Your task to perform on an android device: Open Yahoo.com Image 0: 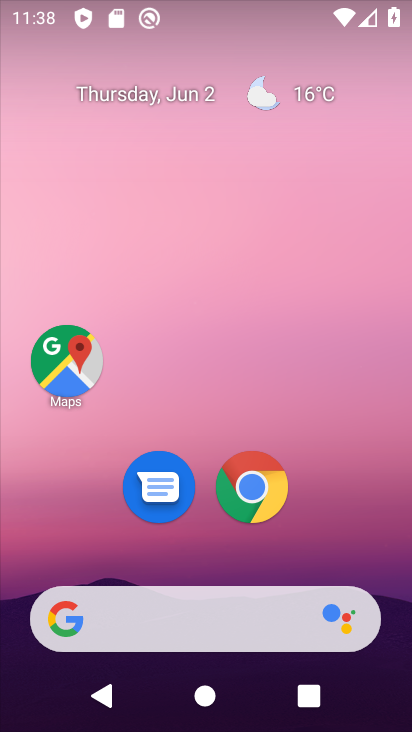
Step 0: click (64, 617)
Your task to perform on an android device: Open Yahoo.com Image 1: 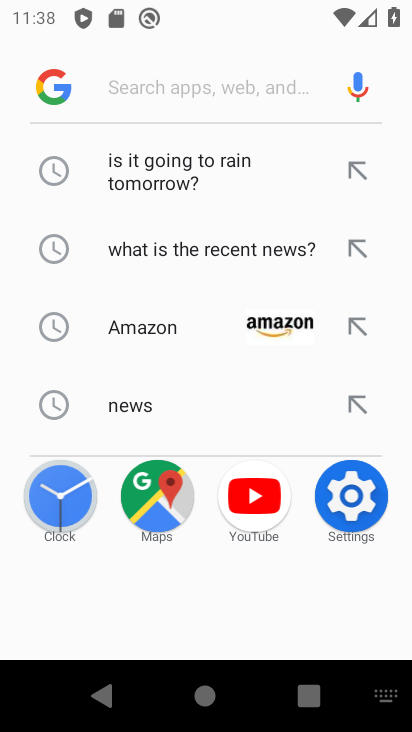
Step 1: click (348, 720)
Your task to perform on an android device: Open Yahoo.com Image 2: 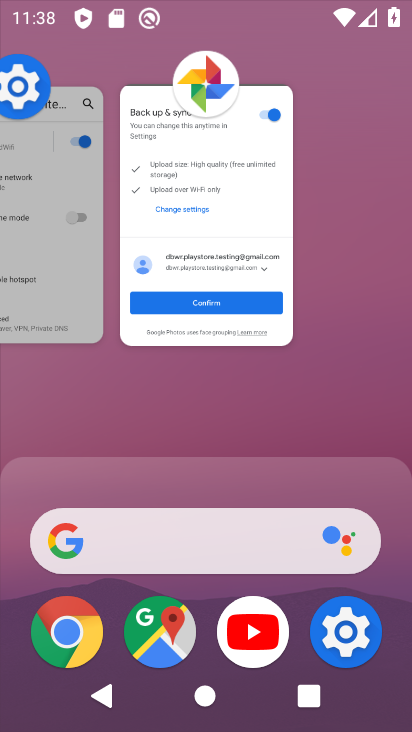
Step 2: press home button
Your task to perform on an android device: Open Yahoo.com Image 3: 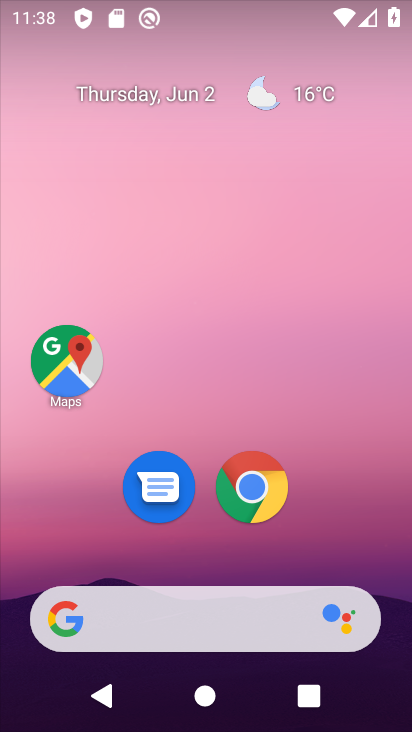
Step 3: click (67, 632)
Your task to perform on an android device: Open Yahoo.com Image 4: 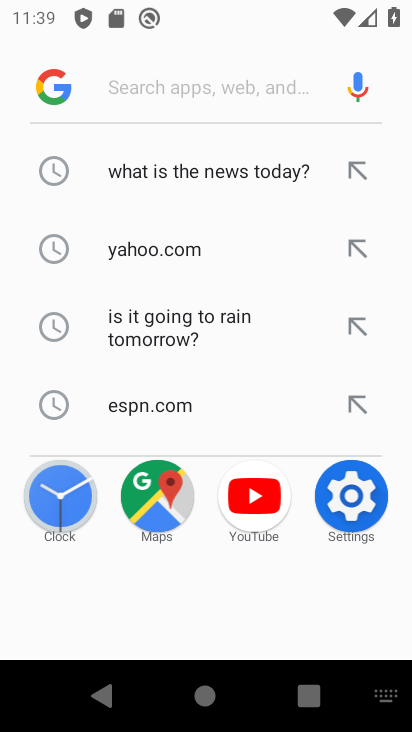
Step 4: type "Yahoo.com"
Your task to perform on an android device: Open Yahoo.com Image 5: 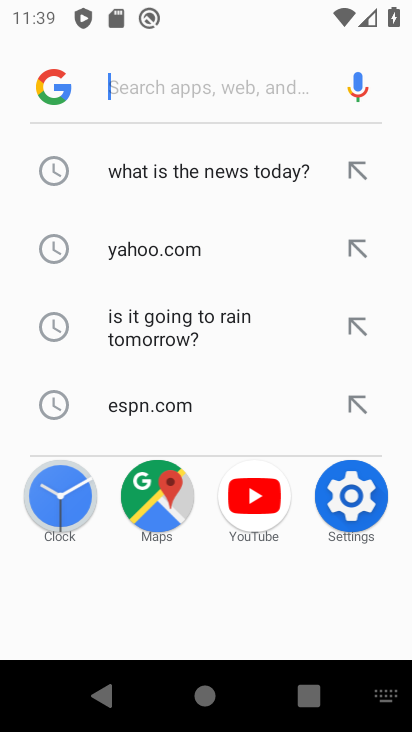
Step 5: click (85, 104)
Your task to perform on an android device: Open Yahoo.com Image 6: 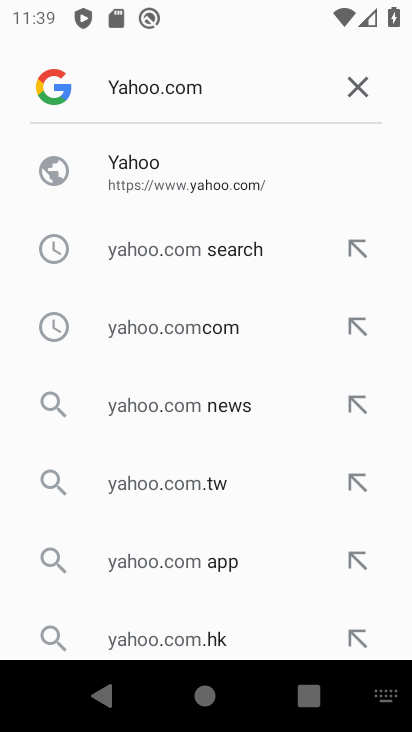
Step 6: click (124, 160)
Your task to perform on an android device: Open Yahoo.com Image 7: 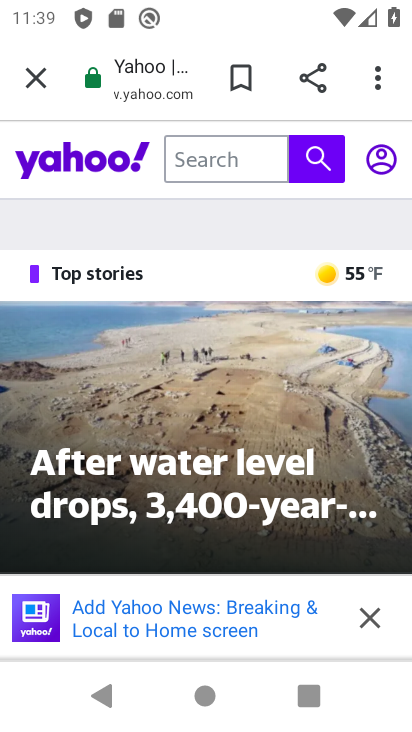
Step 7: task complete